Your task to perform on an android device: Check the weather Image 0: 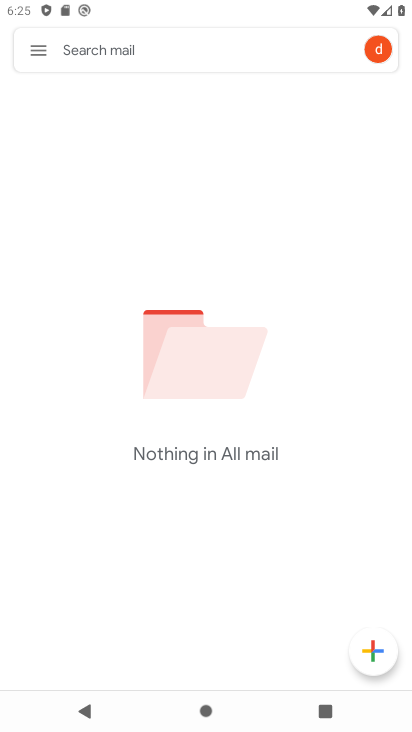
Step 0: drag from (220, 633) to (351, 234)
Your task to perform on an android device: Check the weather Image 1: 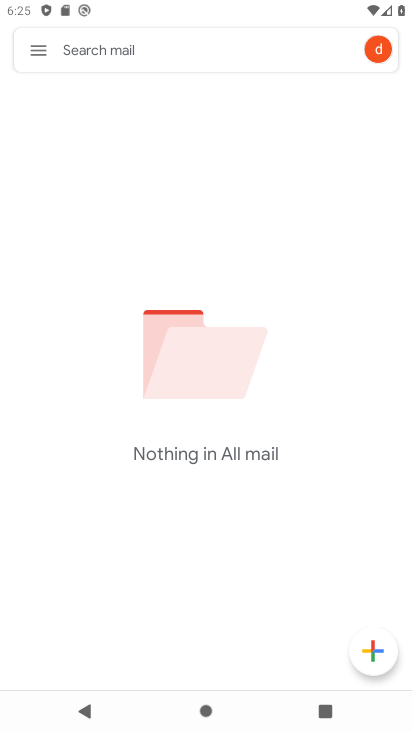
Step 1: press home button
Your task to perform on an android device: Check the weather Image 2: 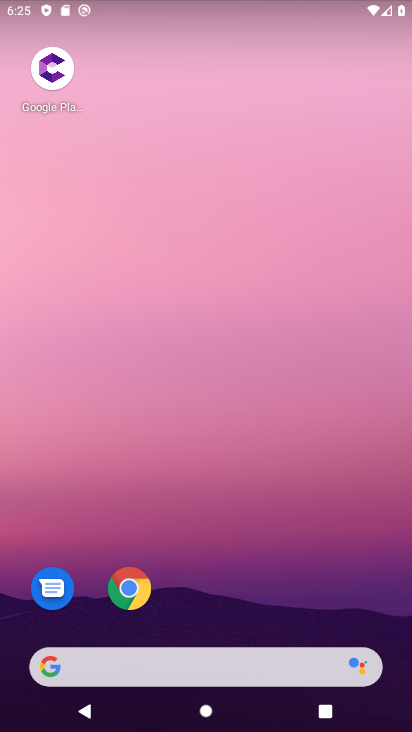
Step 2: click (255, 664)
Your task to perform on an android device: Check the weather Image 3: 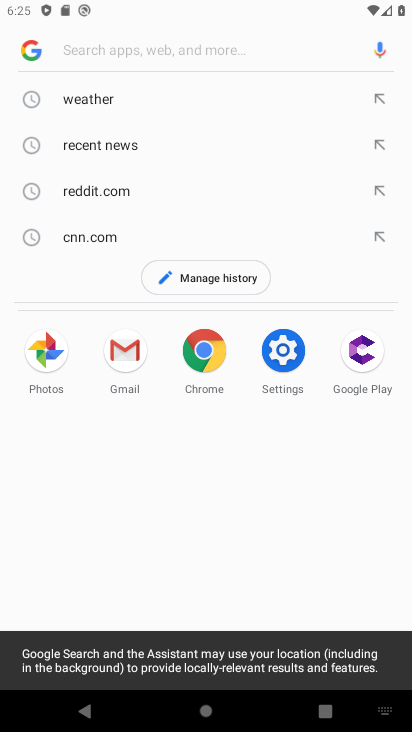
Step 3: click (137, 105)
Your task to perform on an android device: Check the weather Image 4: 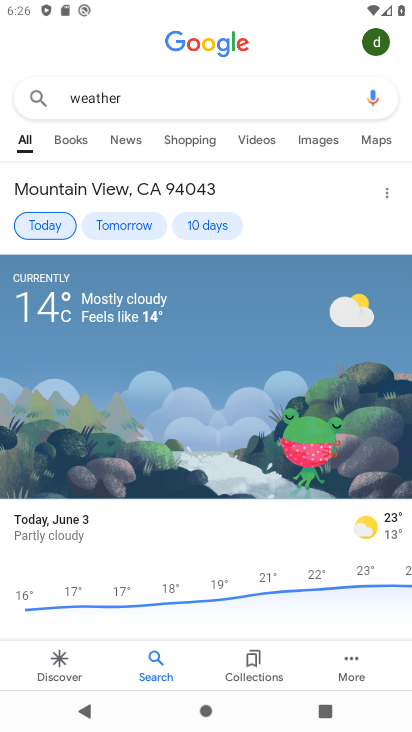
Step 4: task complete